Your task to perform on an android device: Search for "logitech g910" on target, select the first entry, and add it to the cart. Image 0: 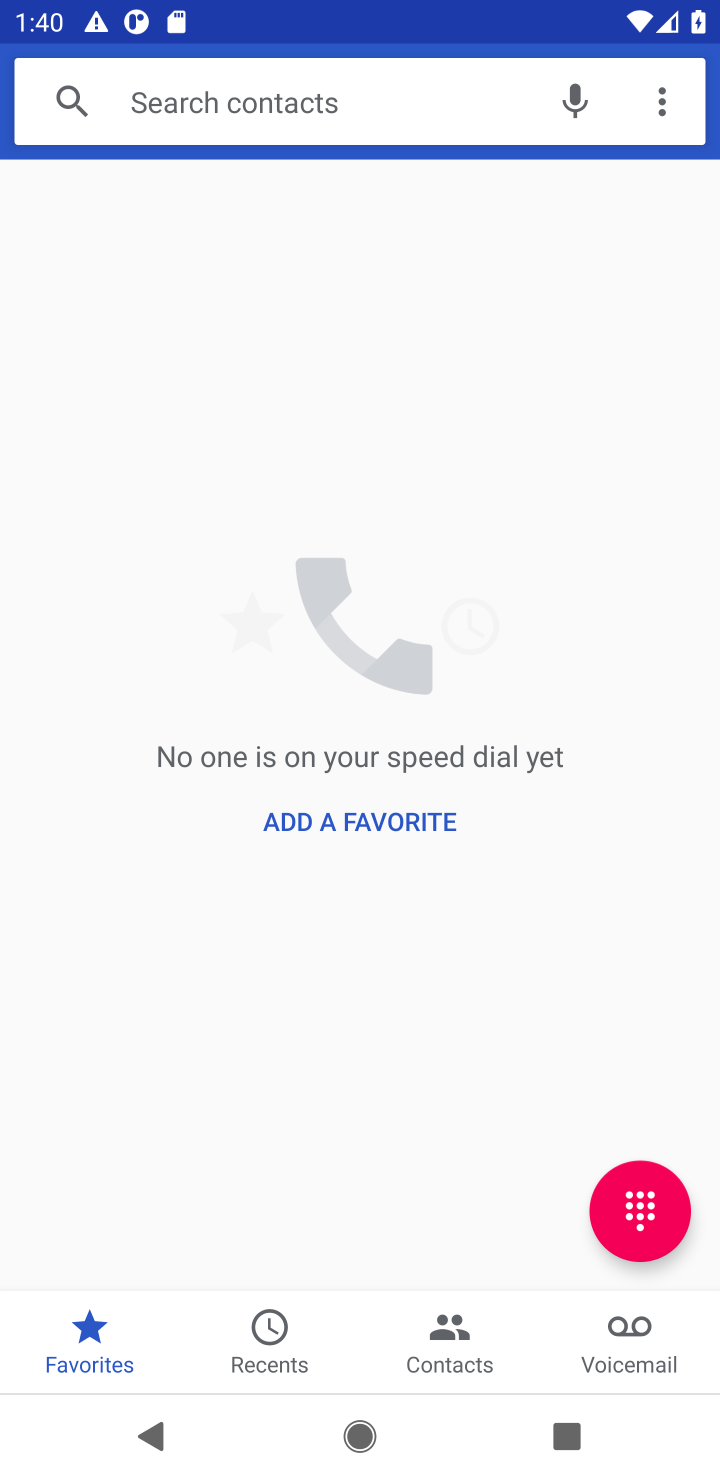
Step 0: press home button
Your task to perform on an android device: Search for "logitech g910" on target, select the first entry, and add it to the cart. Image 1: 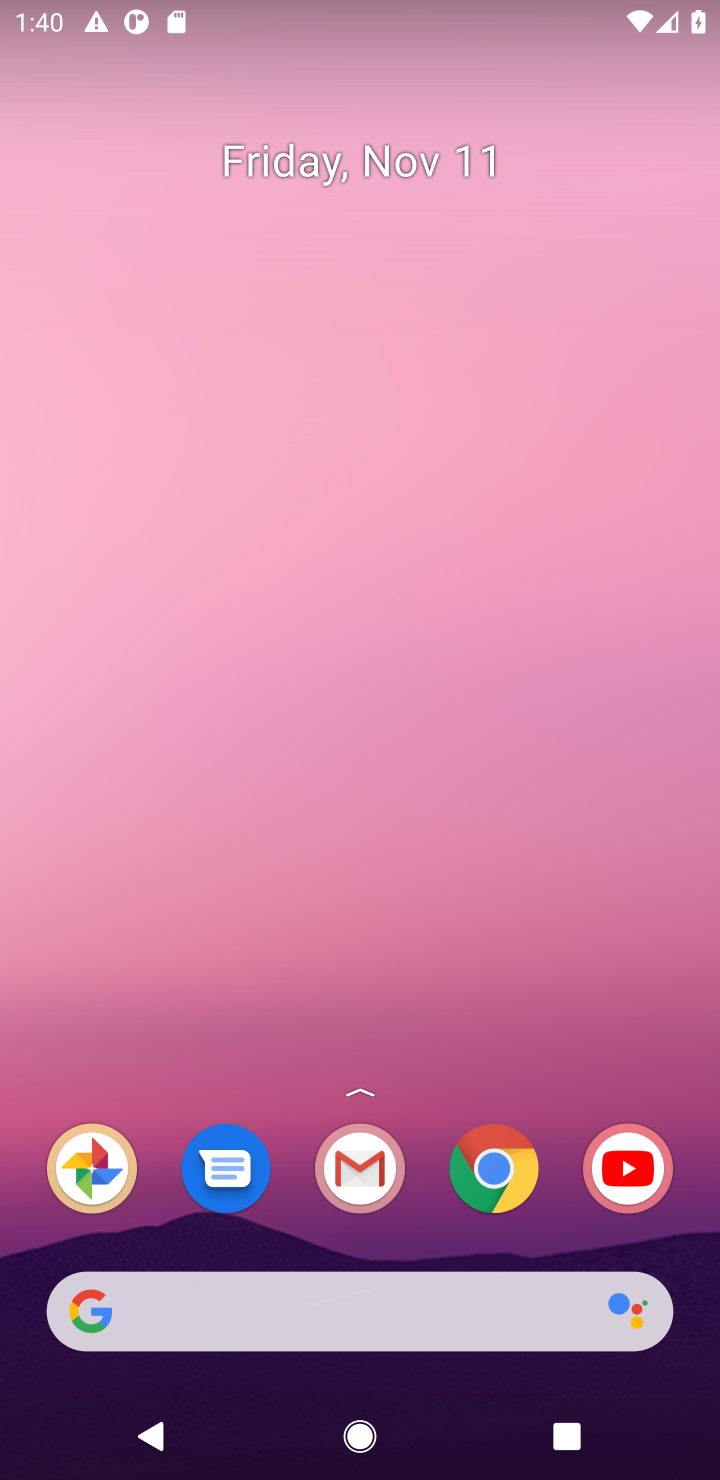
Step 1: click (498, 1168)
Your task to perform on an android device: Search for "logitech g910" on target, select the first entry, and add it to the cart. Image 2: 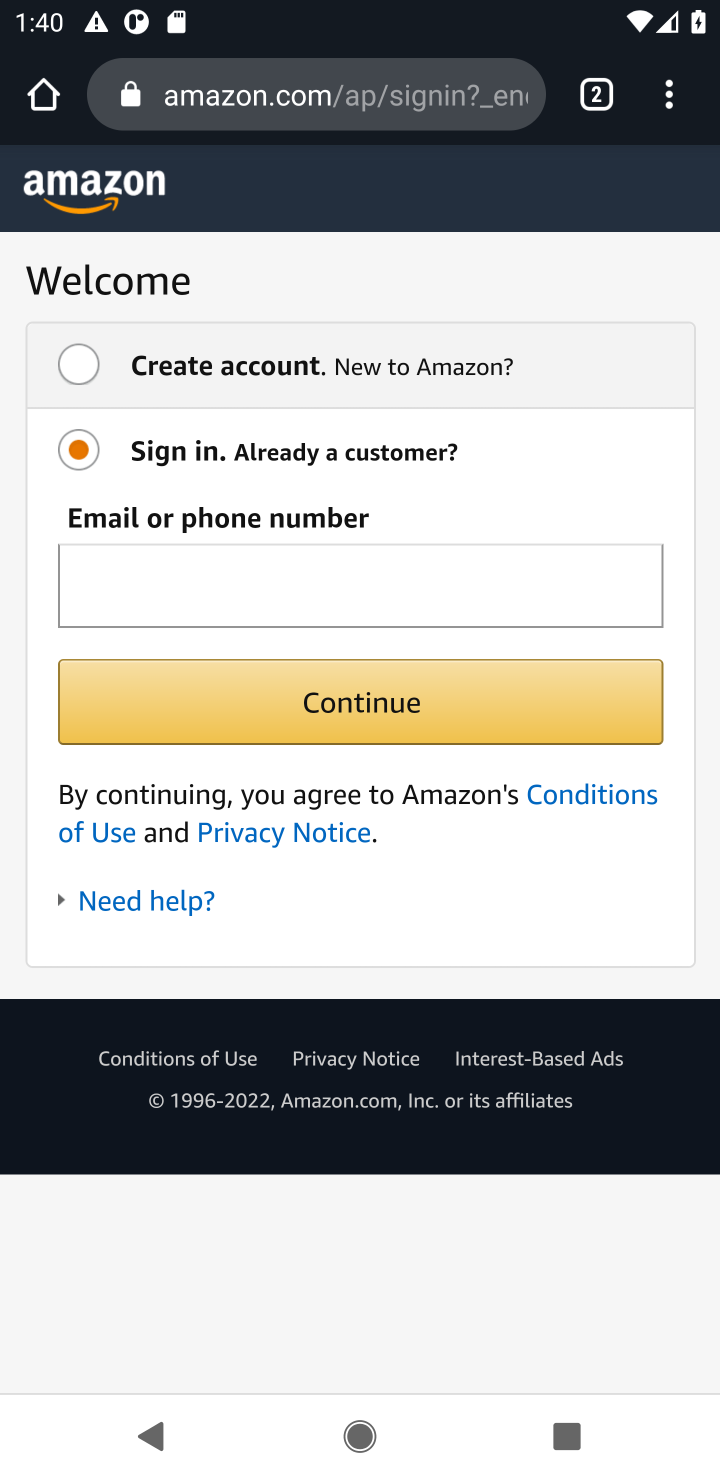
Step 2: click (238, 109)
Your task to perform on an android device: Search for "logitech g910" on target, select the first entry, and add it to the cart. Image 3: 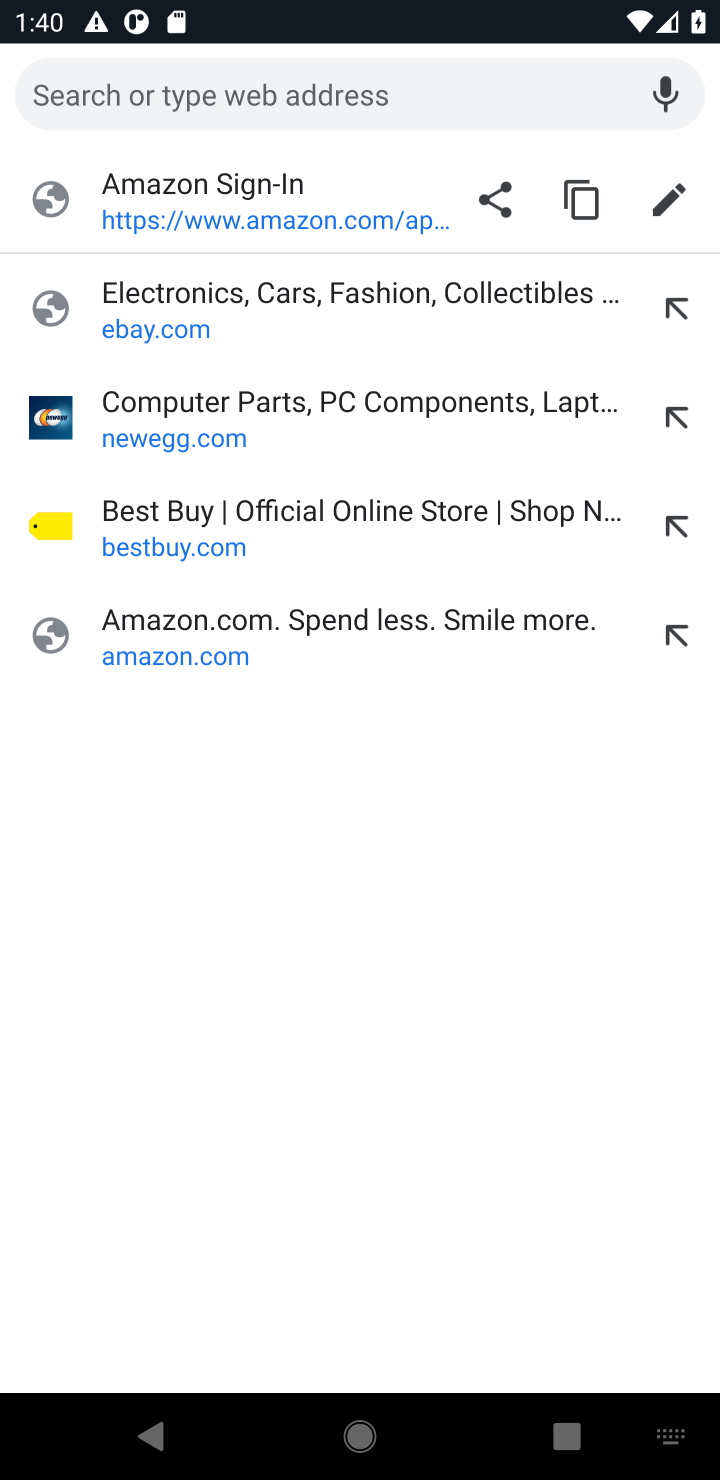
Step 3: type "target.com"
Your task to perform on an android device: Search for "logitech g910" on target, select the first entry, and add it to the cart. Image 4: 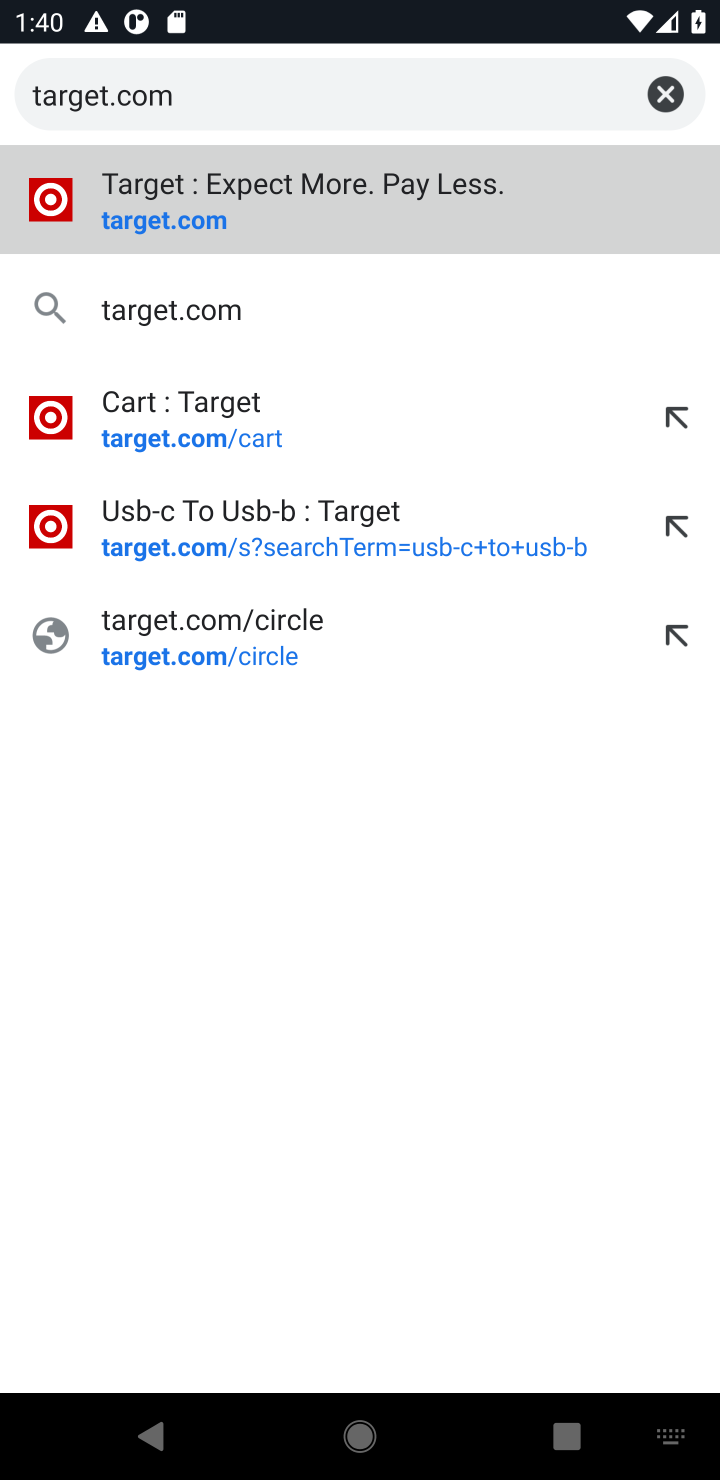
Step 4: click (148, 224)
Your task to perform on an android device: Search for "logitech g910" on target, select the first entry, and add it to the cart. Image 5: 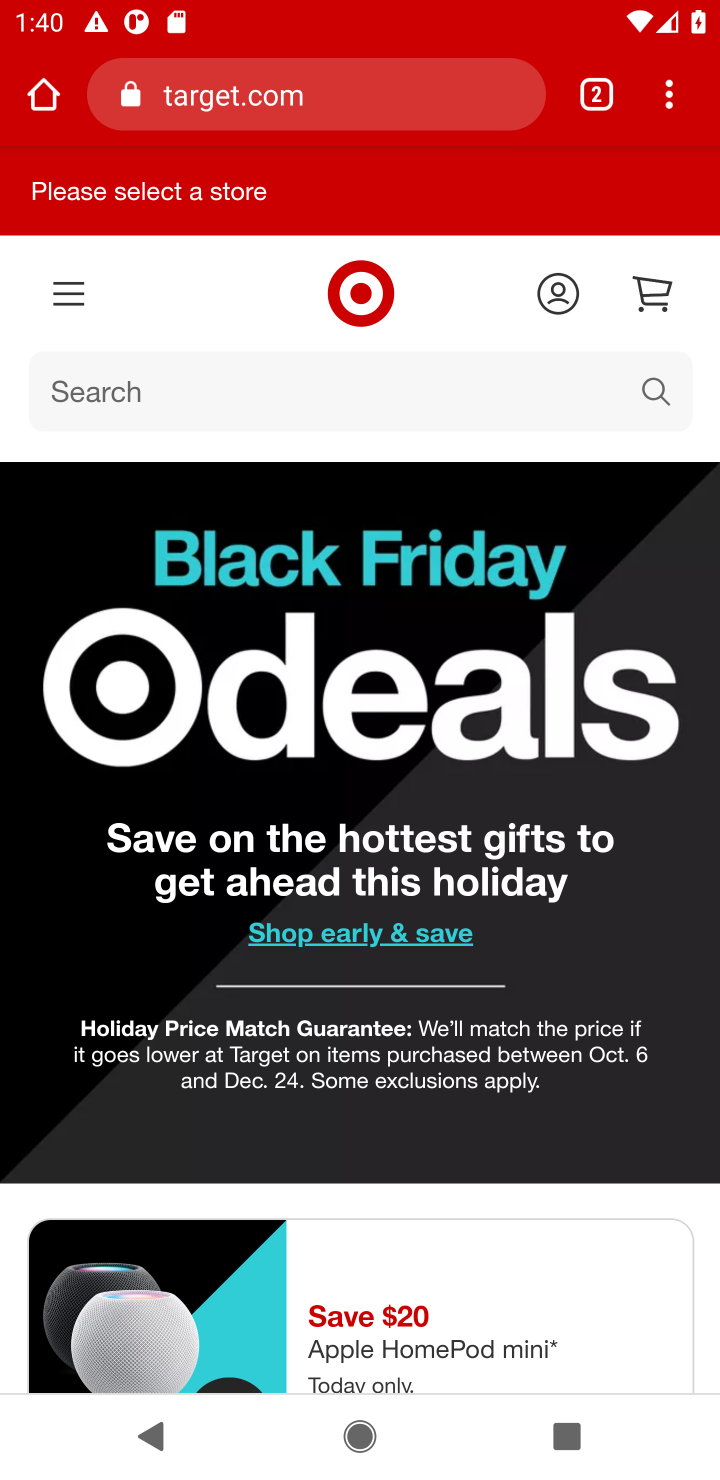
Step 5: click (663, 396)
Your task to perform on an android device: Search for "logitech g910" on target, select the first entry, and add it to the cart. Image 6: 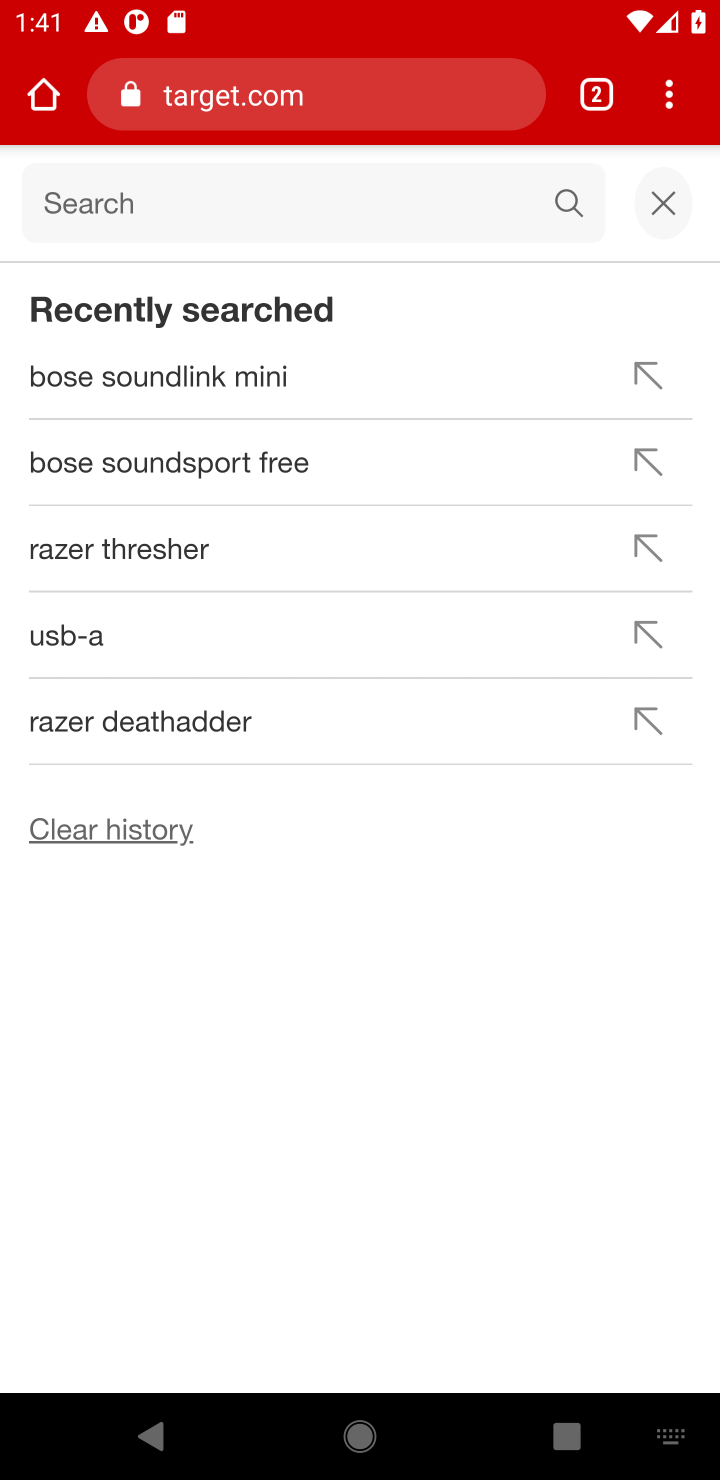
Step 6: type "logitech g910"
Your task to perform on an android device: Search for "logitech g910" on target, select the first entry, and add it to the cart. Image 7: 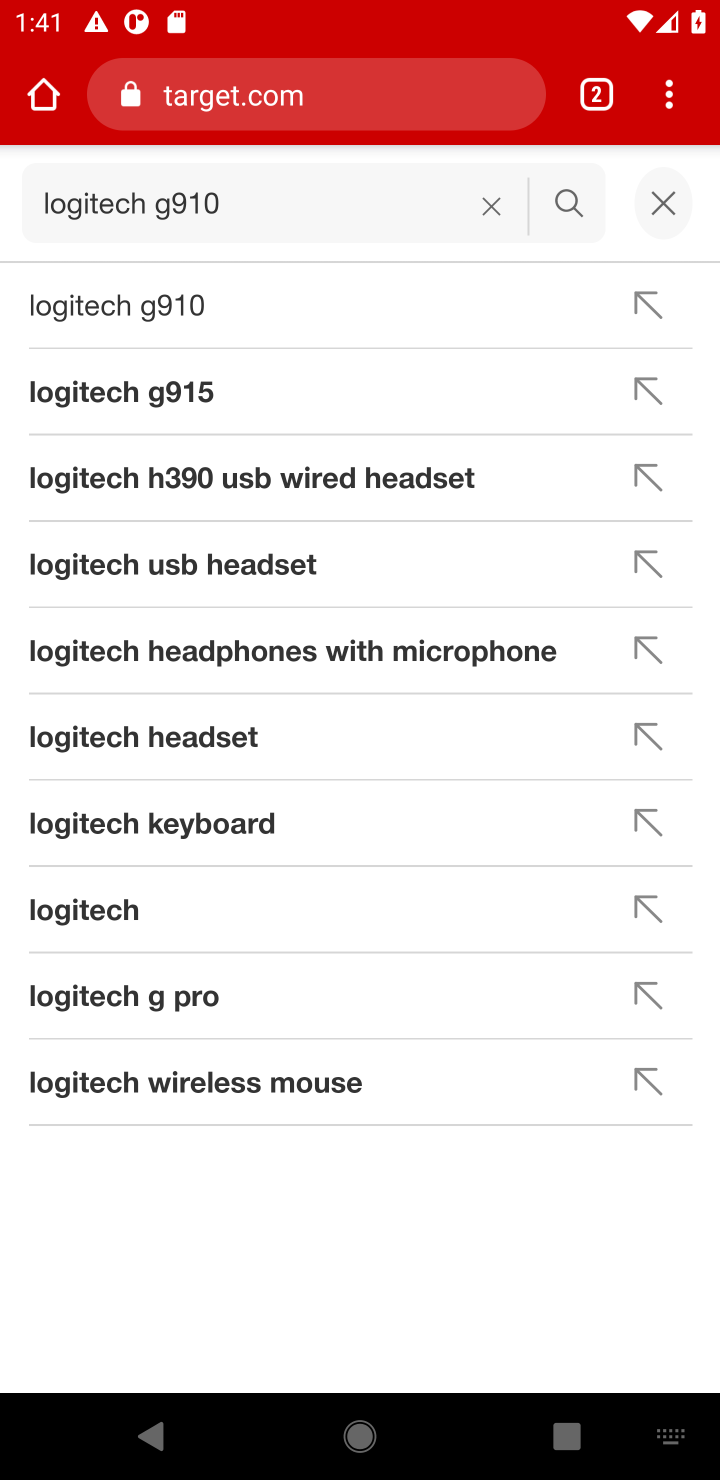
Step 7: click (104, 292)
Your task to perform on an android device: Search for "logitech g910" on target, select the first entry, and add it to the cart. Image 8: 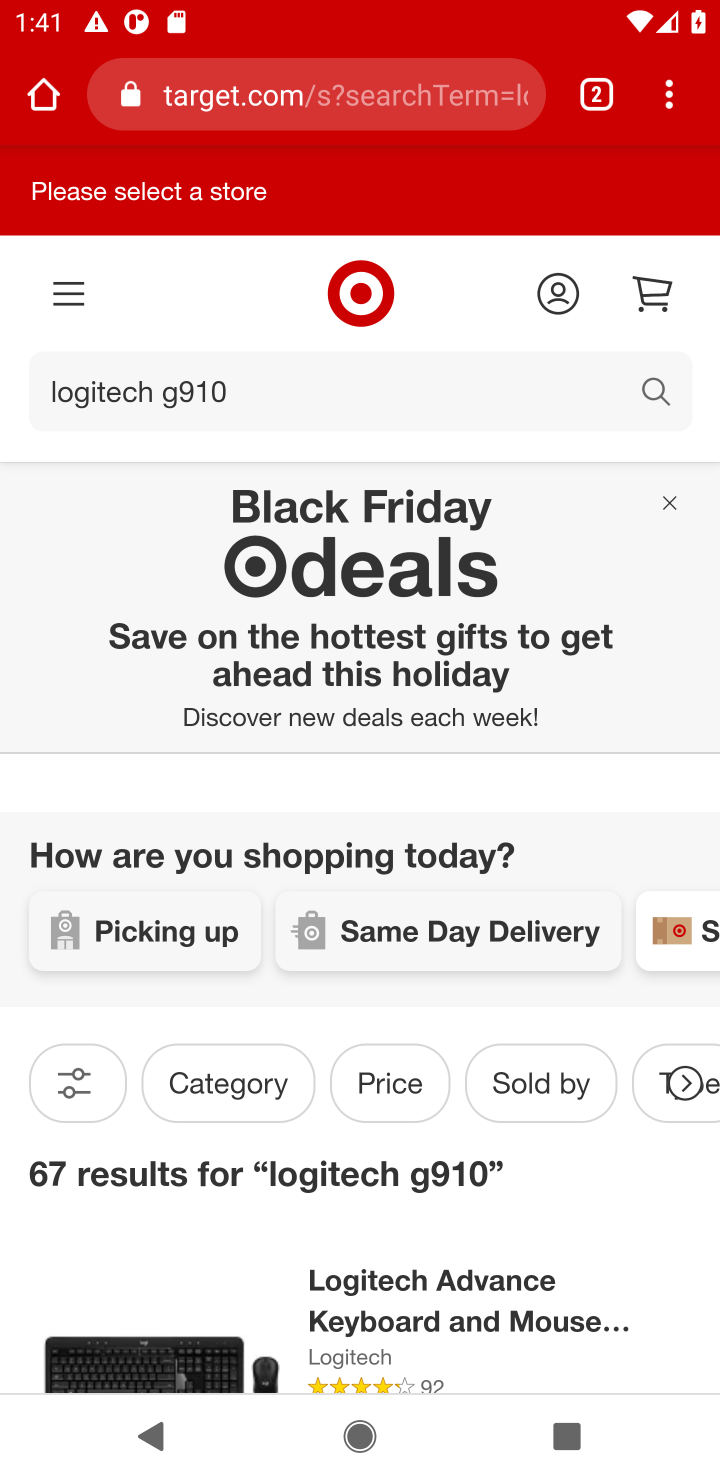
Step 8: task complete